Your task to perform on an android device: toggle data saver in the chrome app Image 0: 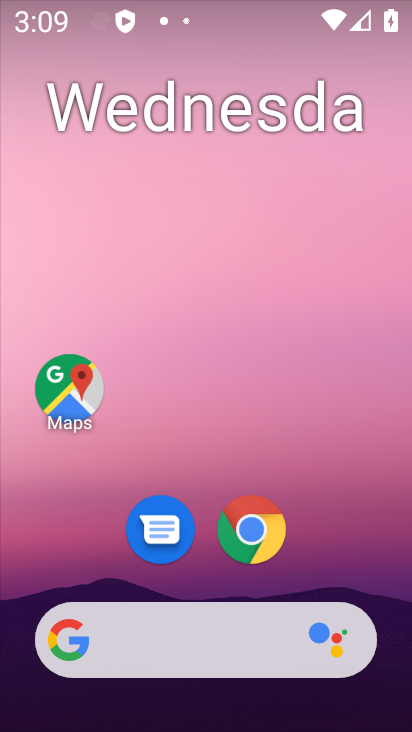
Step 0: click (247, 542)
Your task to perform on an android device: toggle data saver in the chrome app Image 1: 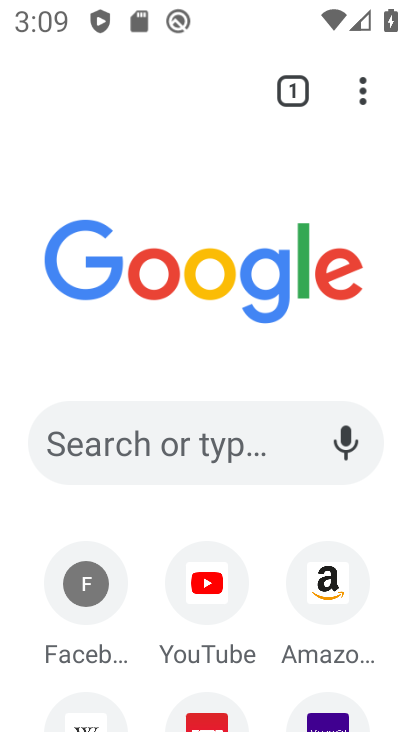
Step 1: drag from (357, 57) to (266, 571)
Your task to perform on an android device: toggle data saver in the chrome app Image 2: 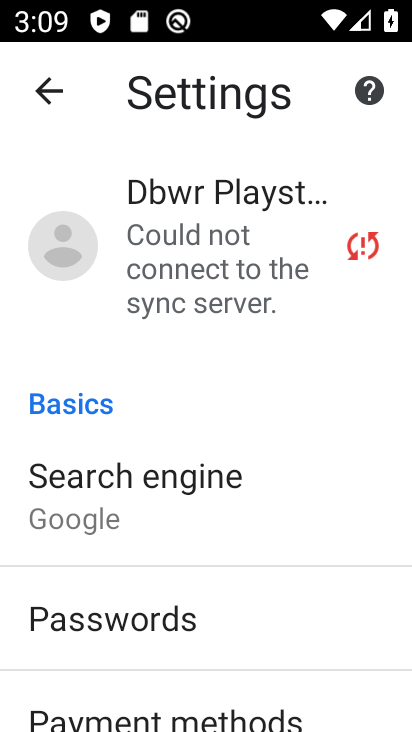
Step 2: drag from (152, 656) to (231, 190)
Your task to perform on an android device: toggle data saver in the chrome app Image 3: 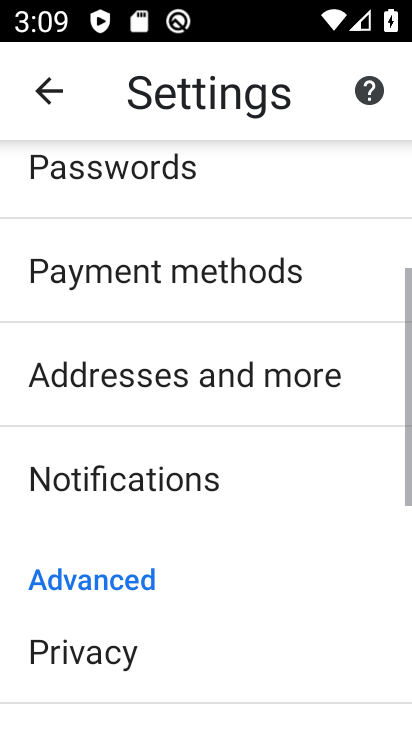
Step 3: drag from (179, 555) to (248, 229)
Your task to perform on an android device: toggle data saver in the chrome app Image 4: 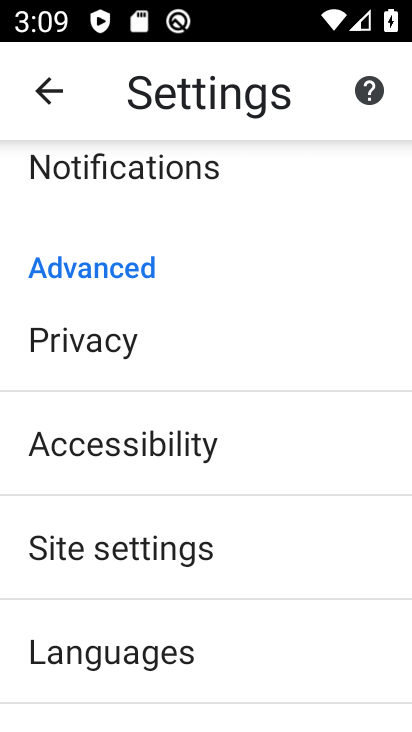
Step 4: drag from (169, 636) to (223, 289)
Your task to perform on an android device: toggle data saver in the chrome app Image 5: 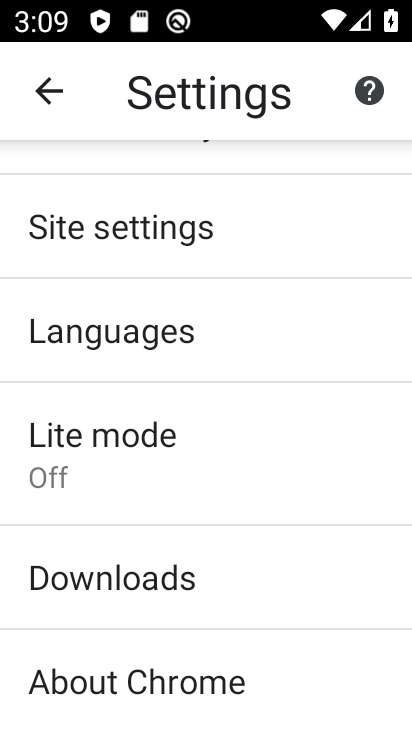
Step 5: drag from (164, 638) to (213, 381)
Your task to perform on an android device: toggle data saver in the chrome app Image 6: 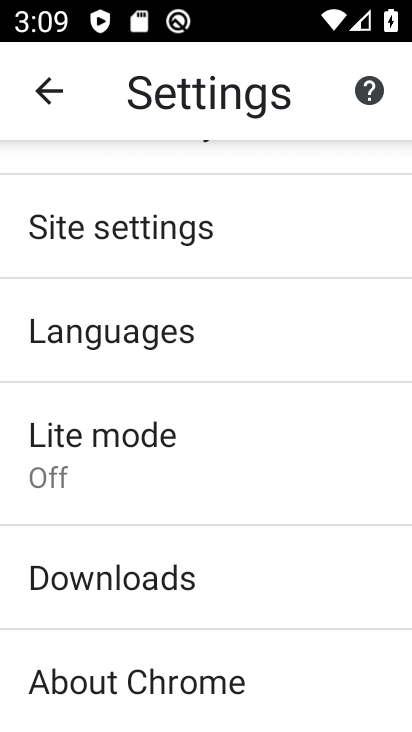
Step 6: click (132, 470)
Your task to perform on an android device: toggle data saver in the chrome app Image 7: 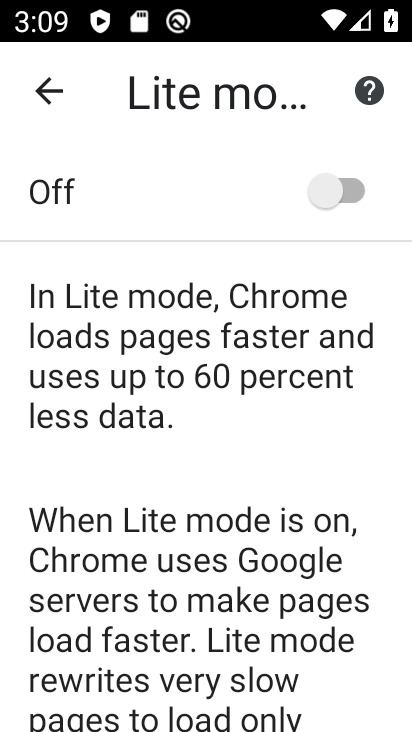
Step 7: click (360, 192)
Your task to perform on an android device: toggle data saver in the chrome app Image 8: 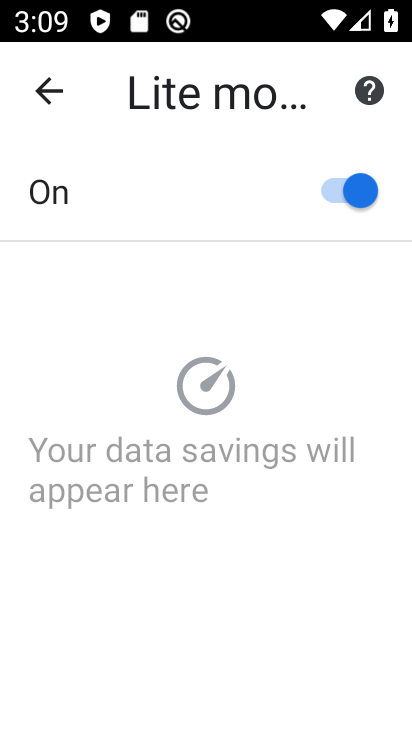
Step 8: task complete